Your task to perform on an android device: open sync settings in chrome Image 0: 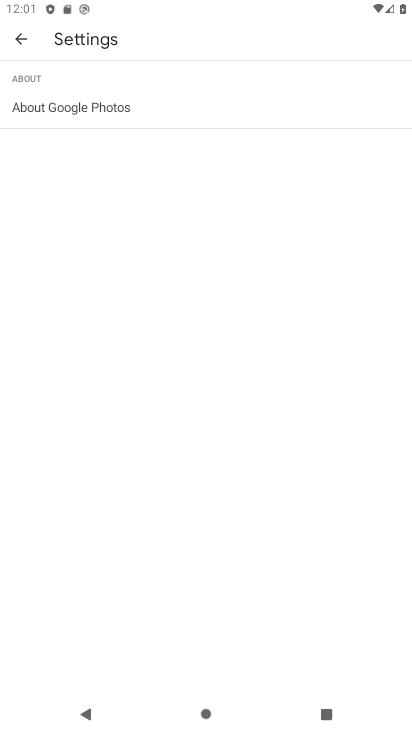
Step 0: task complete